Your task to perform on an android device: open chrome and create a bookmark for the current page Image 0: 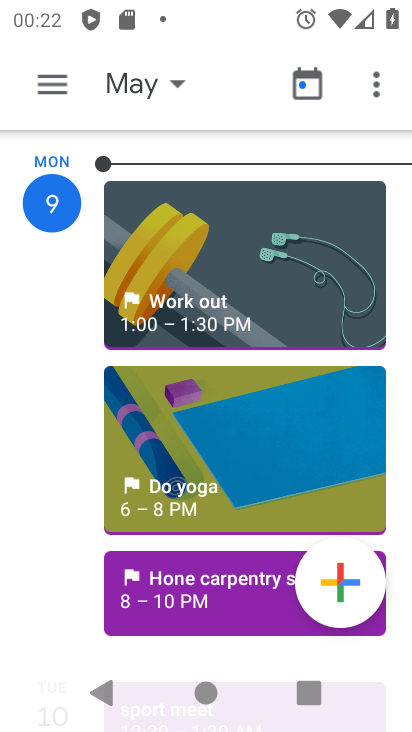
Step 0: press home button
Your task to perform on an android device: open chrome and create a bookmark for the current page Image 1: 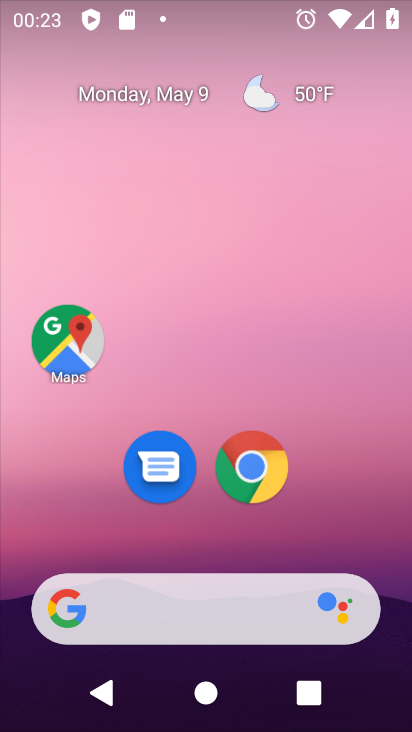
Step 1: click (250, 458)
Your task to perform on an android device: open chrome and create a bookmark for the current page Image 2: 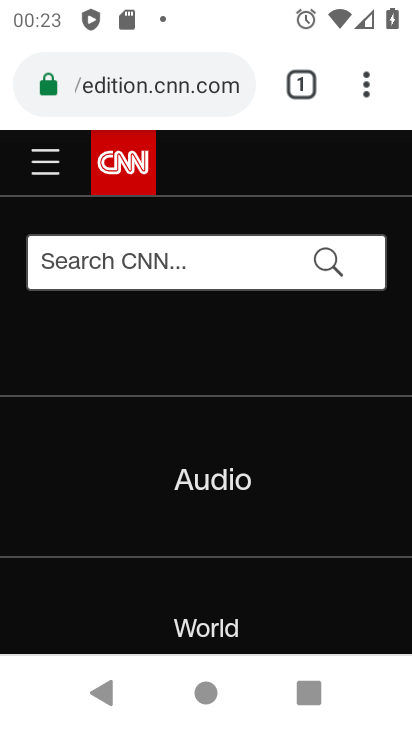
Step 2: click (298, 76)
Your task to perform on an android device: open chrome and create a bookmark for the current page Image 3: 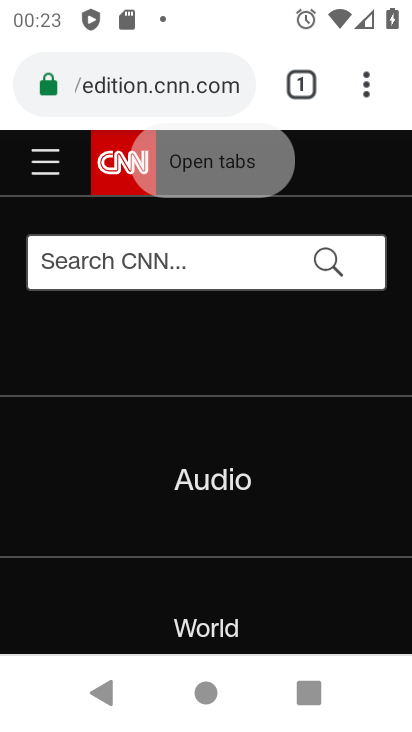
Step 3: click (296, 84)
Your task to perform on an android device: open chrome and create a bookmark for the current page Image 4: 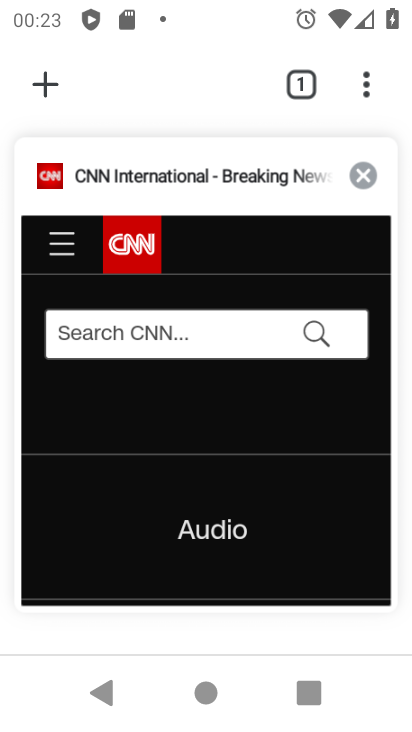
Step 4: click (363, 177)
Your task to perform on an android device: open chrome and create a bookmark for the current page Image 5: 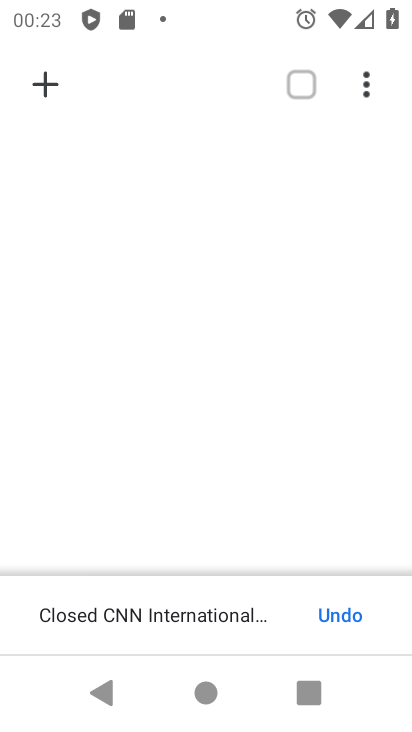
Step 5: click (51, 89)
Your task to perform on an android device: open chrome and create a bookmark for the current page Image 6: 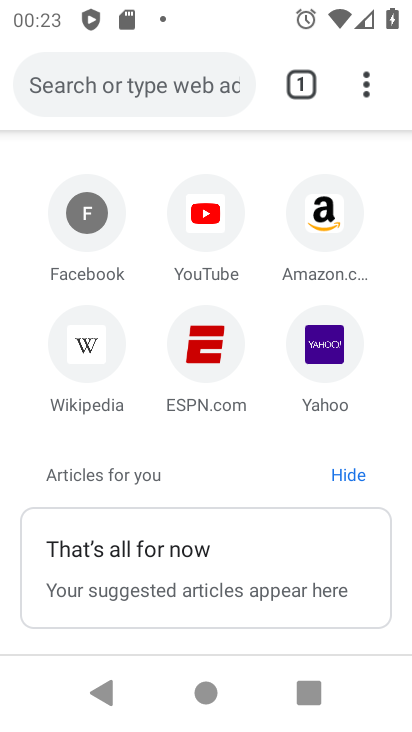
Step 6: click (128, 85)
Your task to perform on an android device: open chrome and create a bookmark for the current page Image 7: 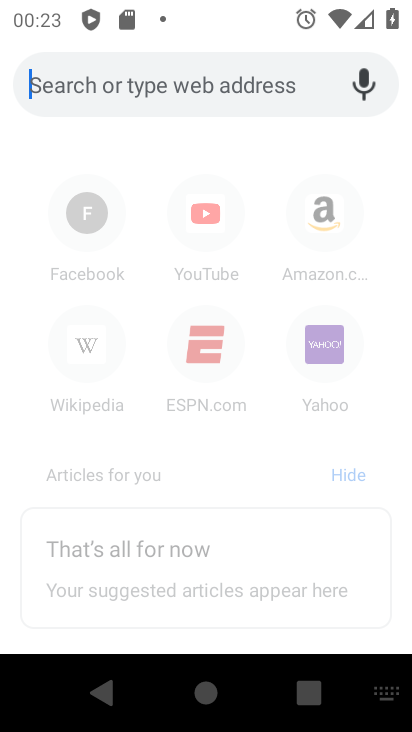
Step 7: type "time"
Your task to perform on an android device: open chrome and create a bookmark for the current page Image 8: 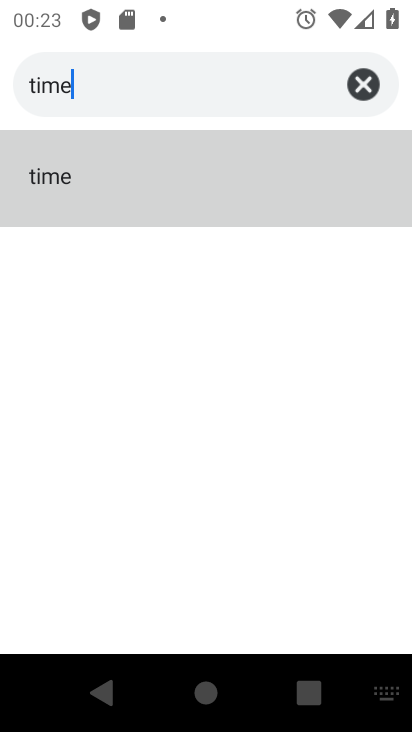
Step 8: click (89, 178)
Your task to perform on an android device: open chrome and create a bookmark for the current page Image 9: 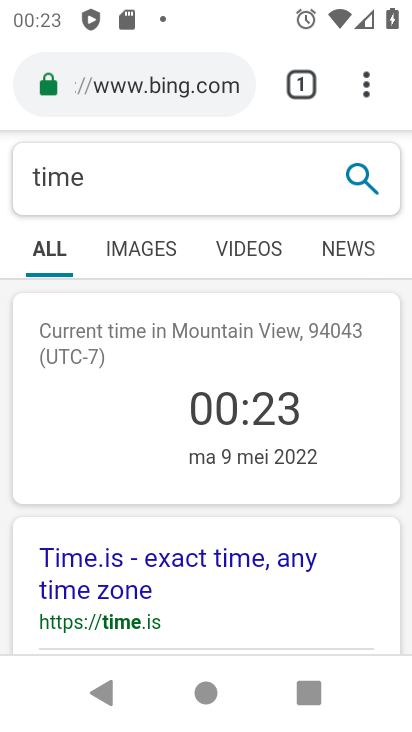
Step 9: click (366, 85)
Your task to perform on an android device: open chrome and create a bookmark for the current page Image 10: 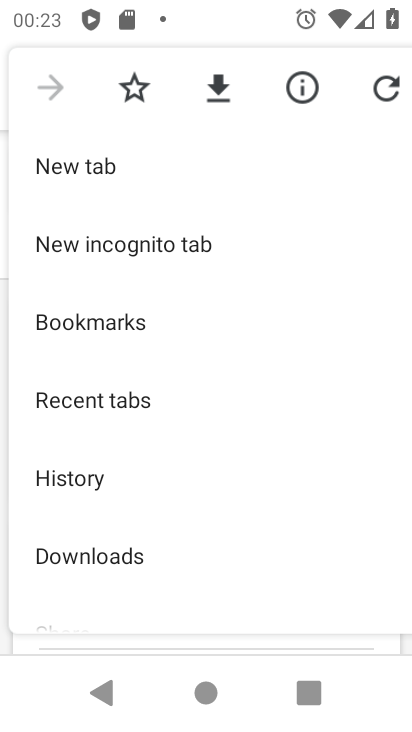
Step 10: click (131, 85)
Your task to perform on an android device: open chrome and create a bookmark for the current page Image 11: 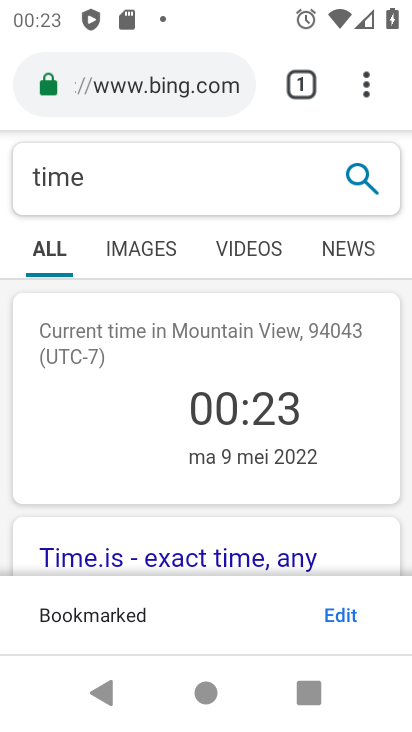
Step 11: task complete